Your task to perform on an android device: Go to Maps Image 0: 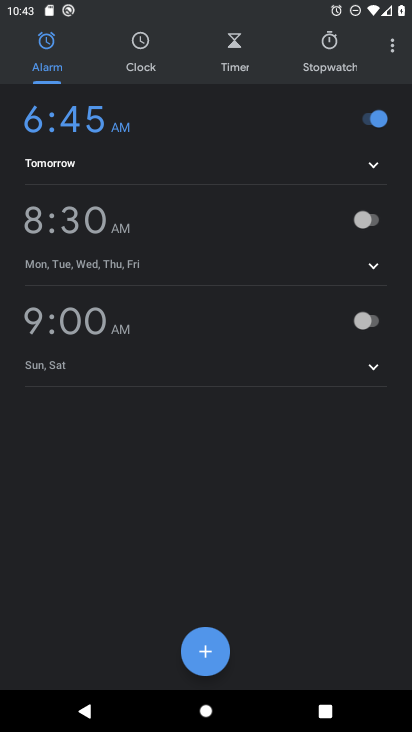
Step 0: press home button
Your task to perform on an android device: Go to Maps Image 1: 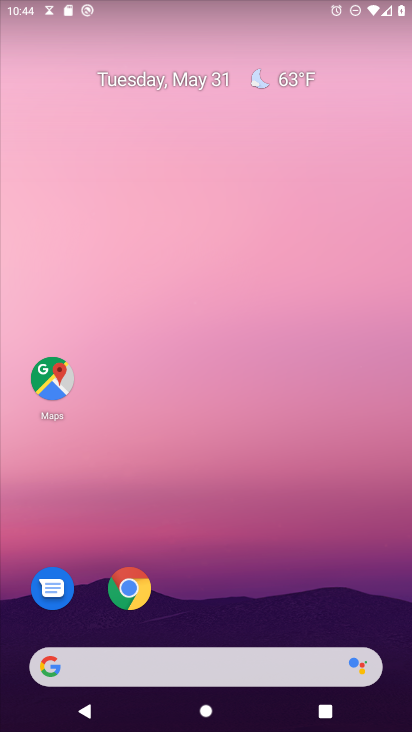
Step 1: click (52, 379)
Your task to perform on an android device: Go to Maps Image 2: 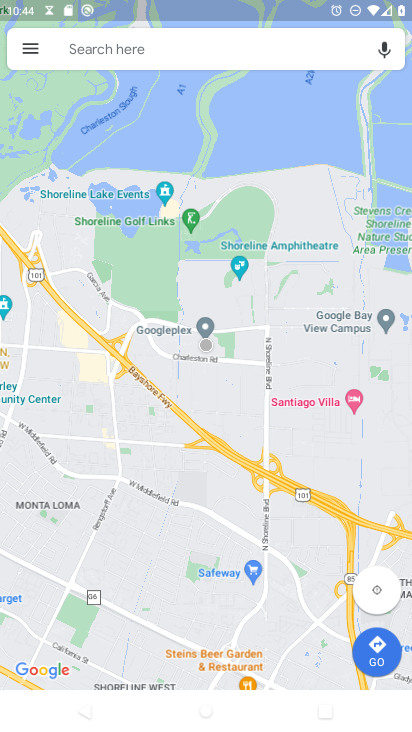
Step 2: task complete